Your task to perform on an android device: change the clock display to analog Image 0: 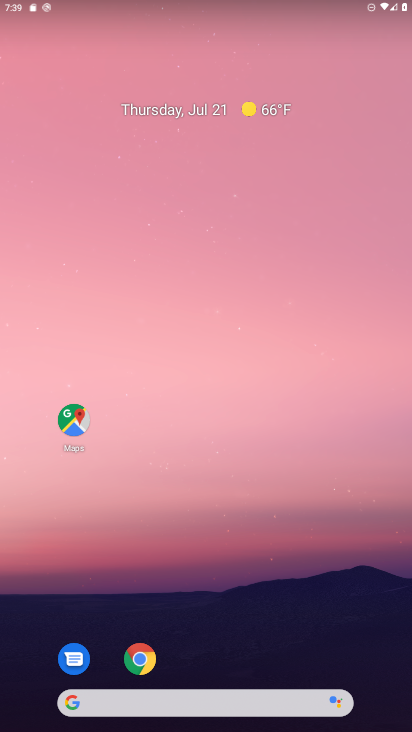
Step 0: drag from (191, 627) to (212, 86)
Your task to perform on an android device: change the clock display to analog Image 1: 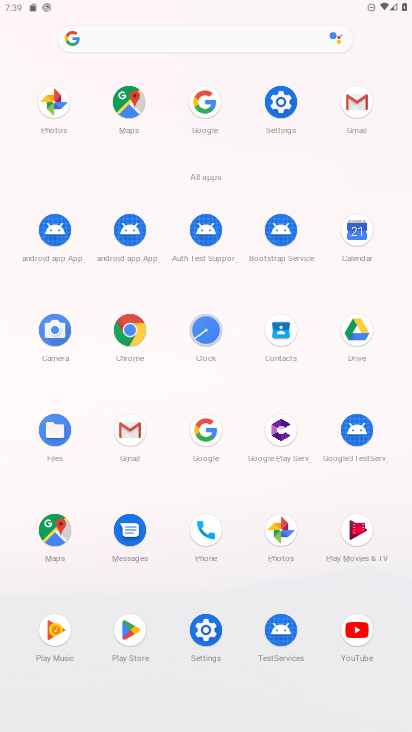
Step 1: click (199, 317)
Your task to perform on an android device: change the clock display to analog Image 2: 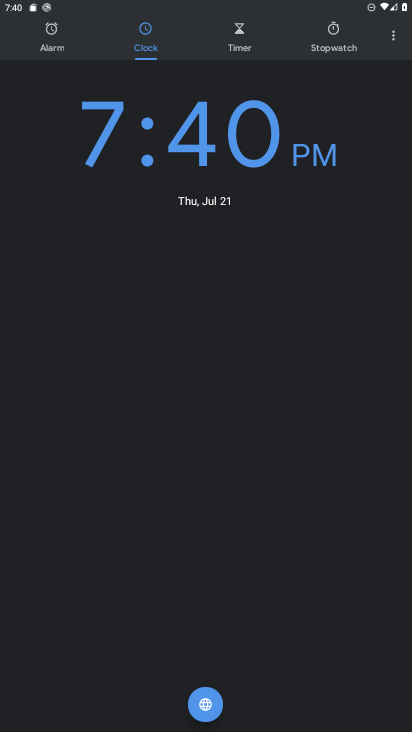
Step 2: drag from (395, 38) to (340, 66)
Your task to perform on an android device: change the clock display to analog Image 3: 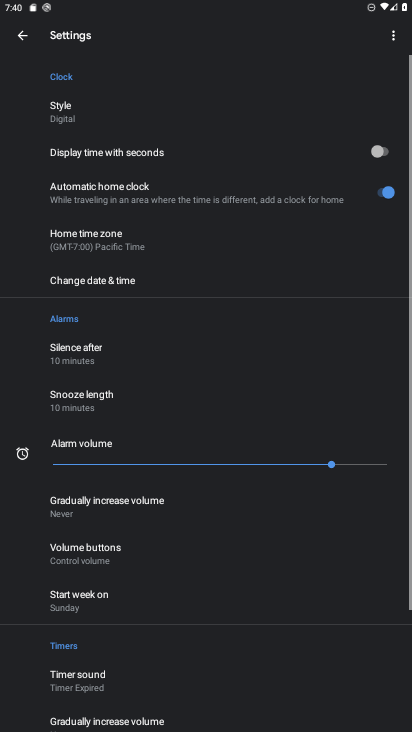
Step 3: click (98, 99)
Your task to perform on an android device: change the clock display to analog Image 4: 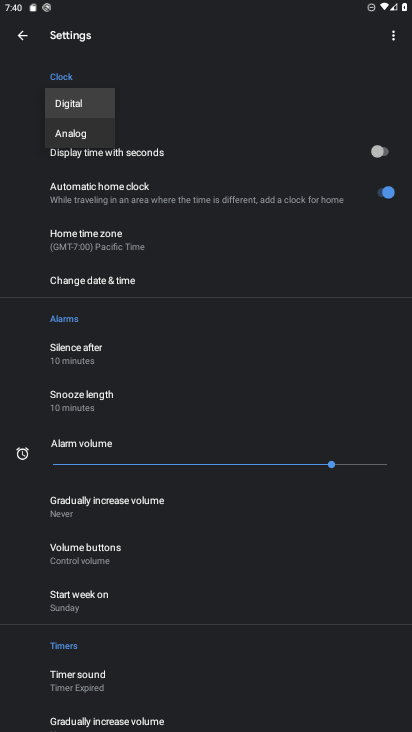
Step 4: click (87, 128)
Your task to perform on an android device: change the clock display to analog Image 5: 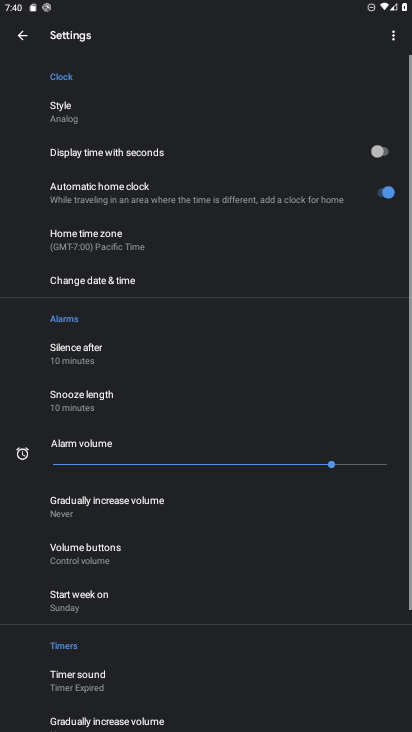
Step 5: task complete